Your task to perform on an android device: Go to Android settings Image 0: 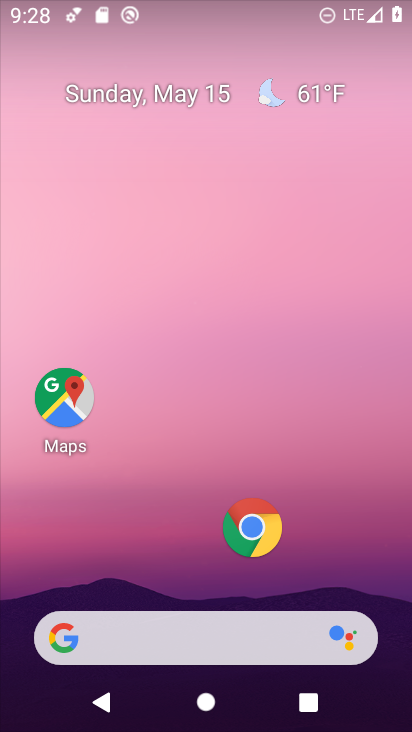
Step 0: press home button
Your task to perform on an android device: Go to Android settings Image 1: 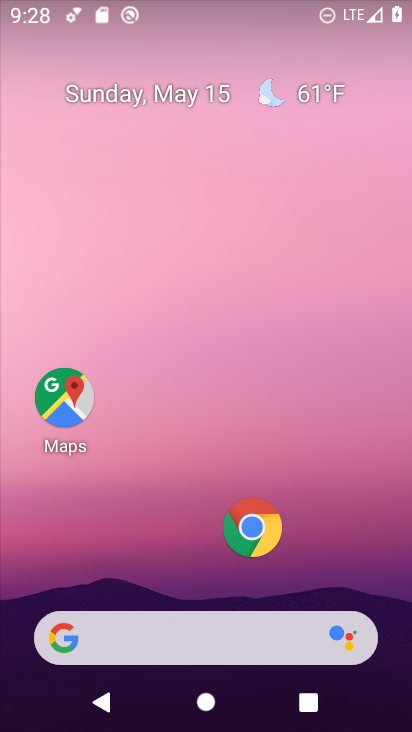
Step 1: drag from (208, 582) to (219, 13)
Your task to perform on an android device: Go to Android settings Image 2: 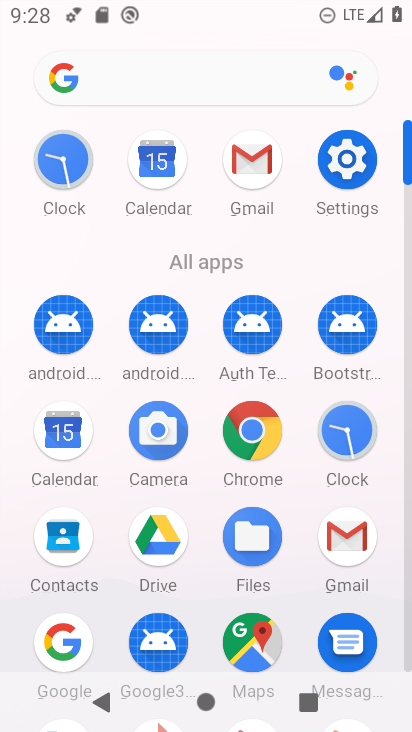
Step 2: click (343, 149)
Your task to perform on an android device: Go to Android settings Image 3: 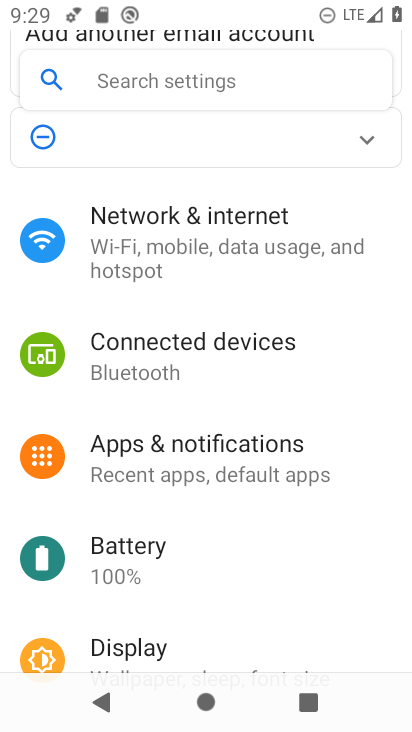
Step 3: drag from (192, 602) to (198, 95)
Your task to perform on an android device: Go to Android settings Image 4: 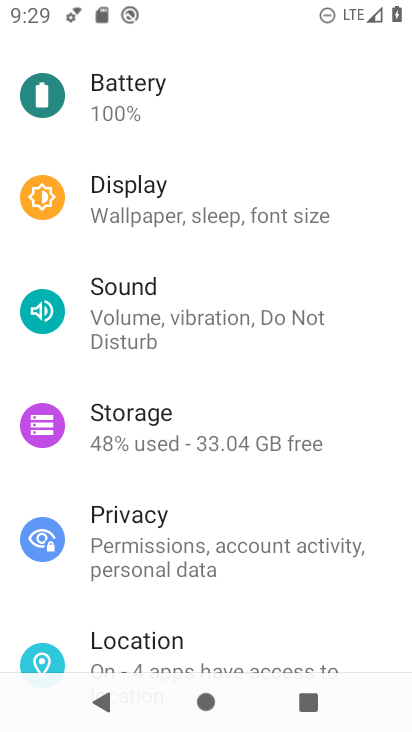
Step 4: drag from (202, 636) to (186, 56)
Your task to perform on an android device: Go to Android settings Image 5: 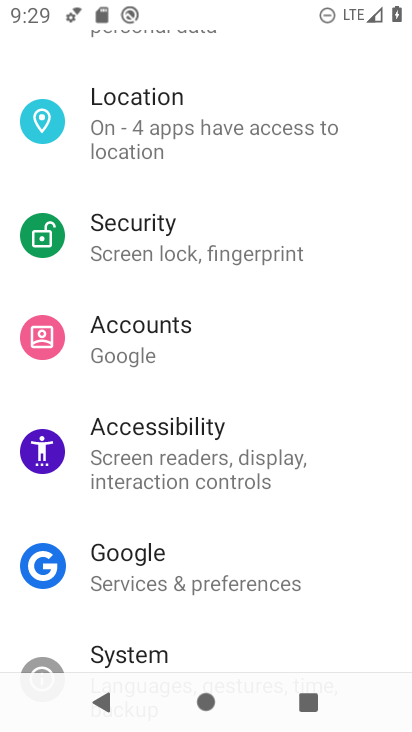
Step 5: drag from (246, 625) to (235, 64)
Your task to perform on an android device: Go to Android settings Image 6: 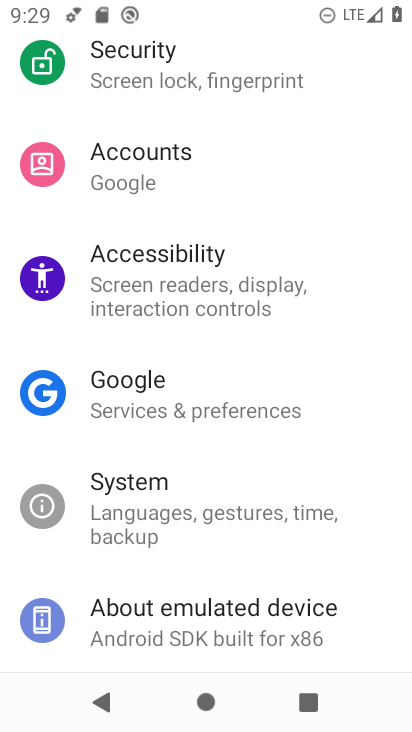
Step 6: click (239, 620)
Your task to perform on an android device: Go to Android settings Image 7: 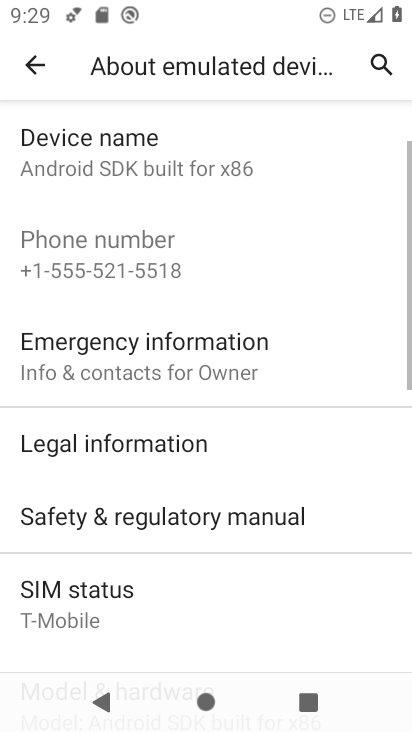
Step 7: drag from (162, 596) to (148, 9)
Your task to perform on an android device: Go to Android settings Image 8: 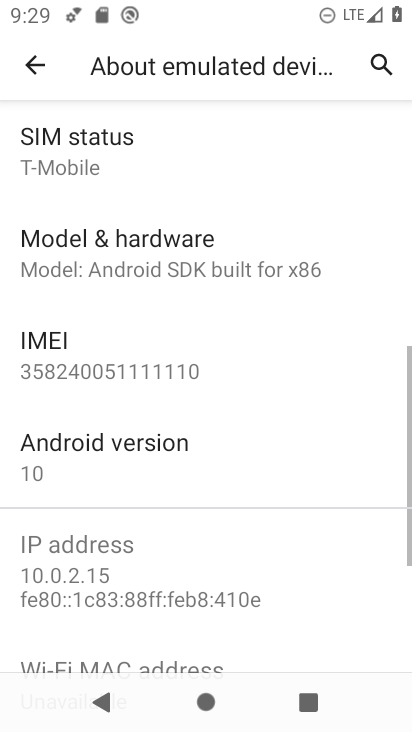
Step 8: click (127, 465)
Your task to perform on an android device: Go to Android settings Image 9: 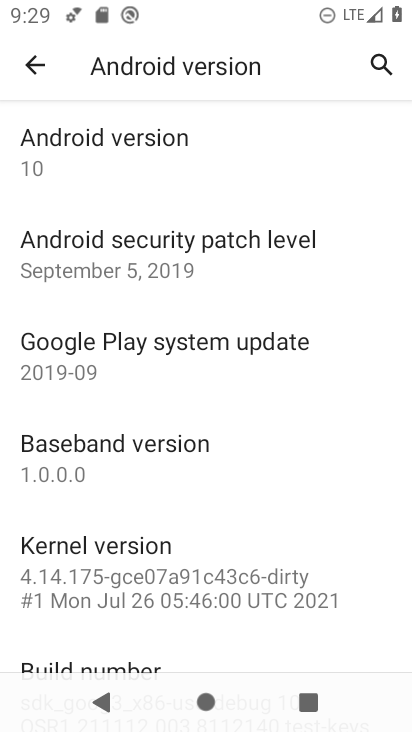
Step 9: task complete